Your task to perform on an android device: turn off data saver in the chrome app Image 0: 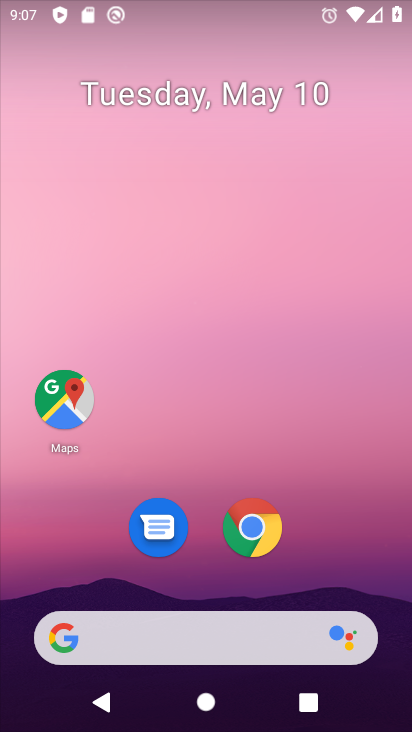
Step 0: click (258, 522)
Your task to perform on an android device: turn off data saver in the chrome app Image 1: 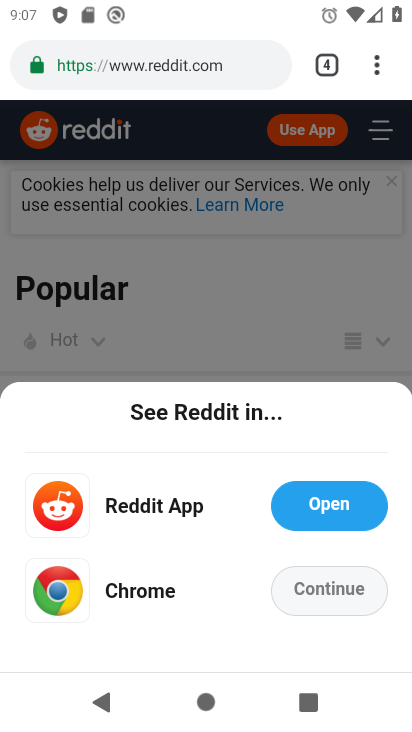
Step 1: click (375, 67)
Your task to perform on an android device: turn off data saver in the chrome app Image 2: 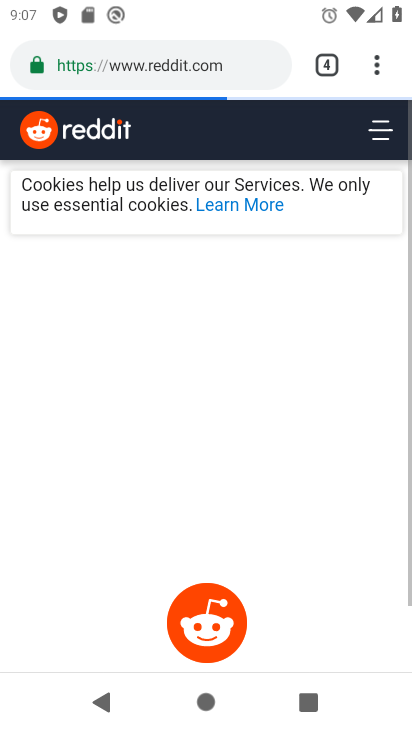
Step 2: drag from (376, 59) to (169, 584)
Your task to perform on an android device: turn off data saver in the chrome app Image 3: 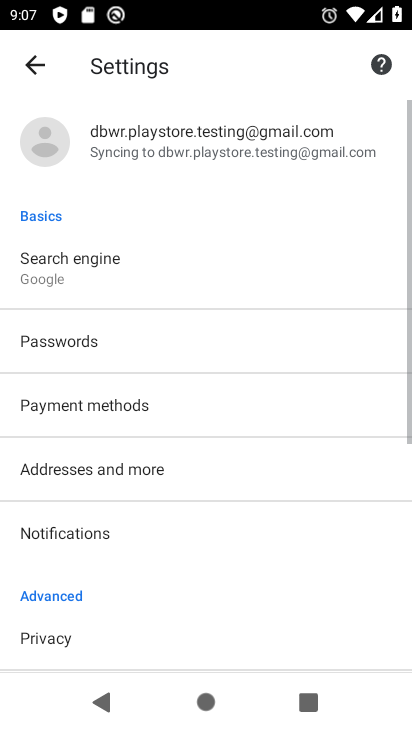
Step 3: drag from (192, 555) to (202, 179)
Your task to perform on an android device: turn off data saver in the chrome app Image 4: 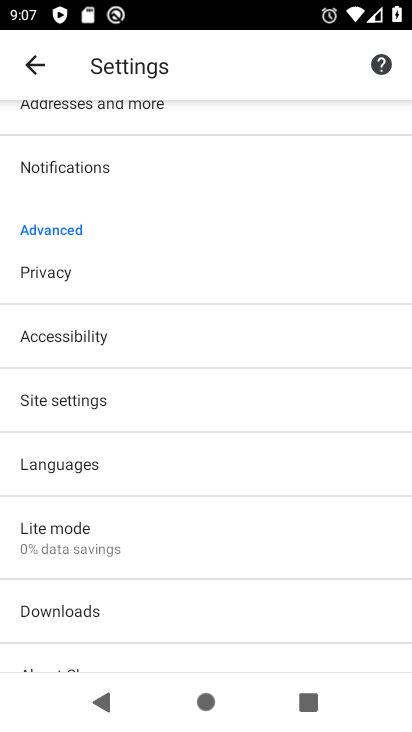
Step 4: click (92, 533)
Your task to perform on an android device: turn off data saver in the chrome app Image 5: 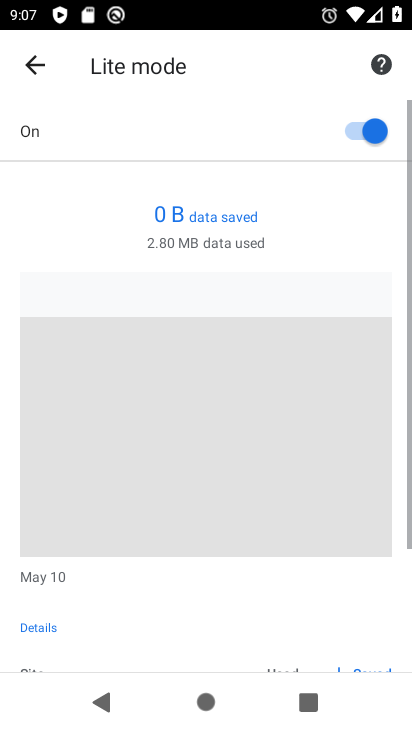
Step 5: click (344, 130)
Your task to perform on an android device: turn off data saver in the chrome app Image 6: 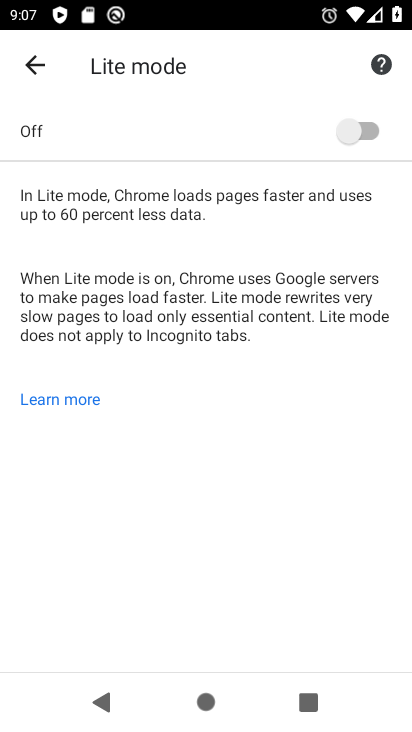
Step 6: task complete